Your task to perform on an android device: toggle airplane mode Image 0: 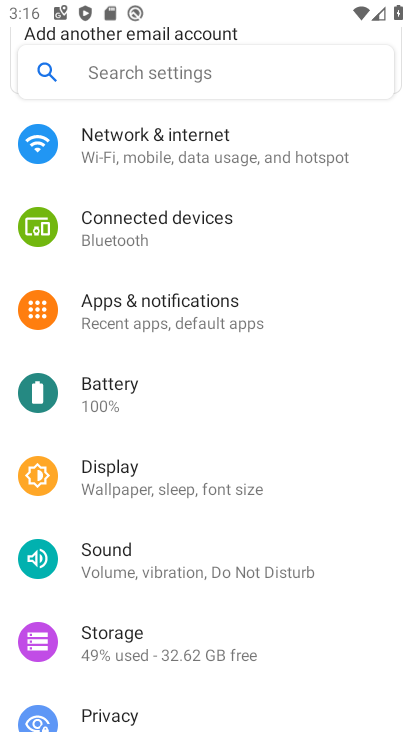
Step 0: click (133, 156)
Your task to perform on an android device: toggle airplane mode Image 1: 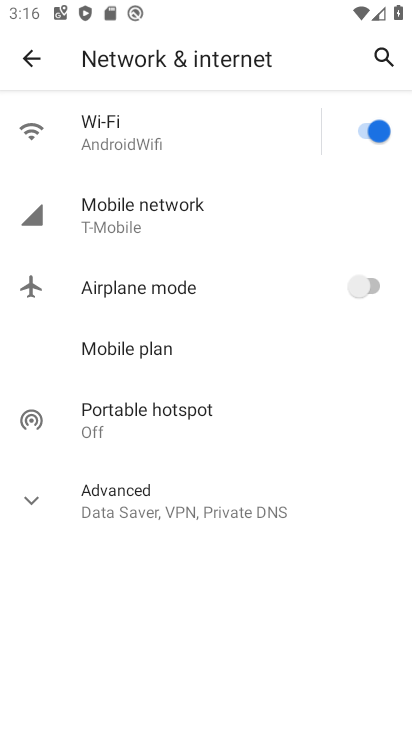
Step 1: click (349, 286)
Your task to perform on an android device: toggle airplane mode Image 2: 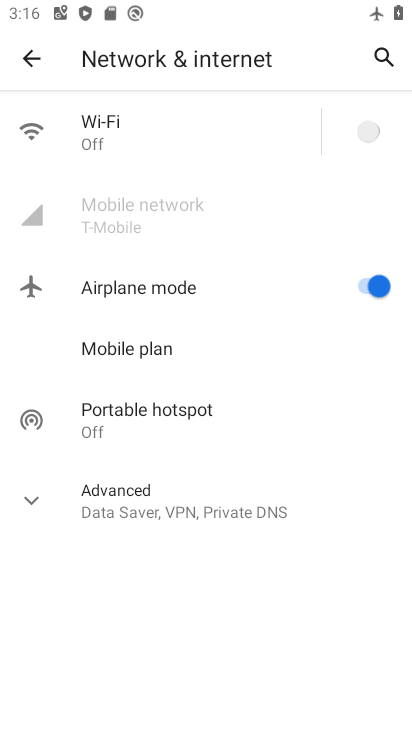
Step 2: task complete